Your task to perform on an android device: see creations saved in the google photos Image 0: 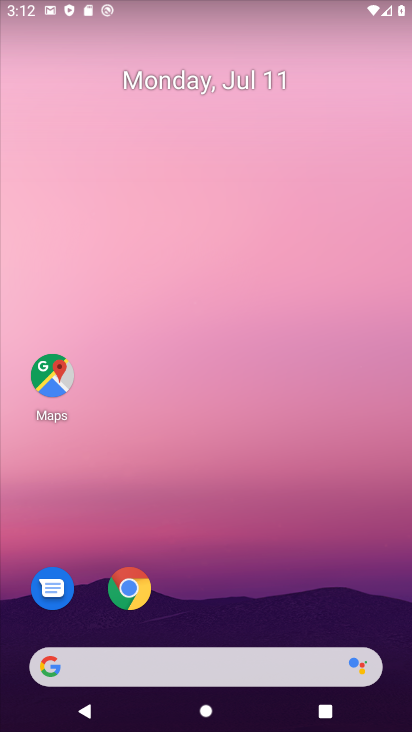
Step 0: drag from (268, 605) to (212, 19)
Your task to perform on an android device: see creations saved in the google photos Image 1: 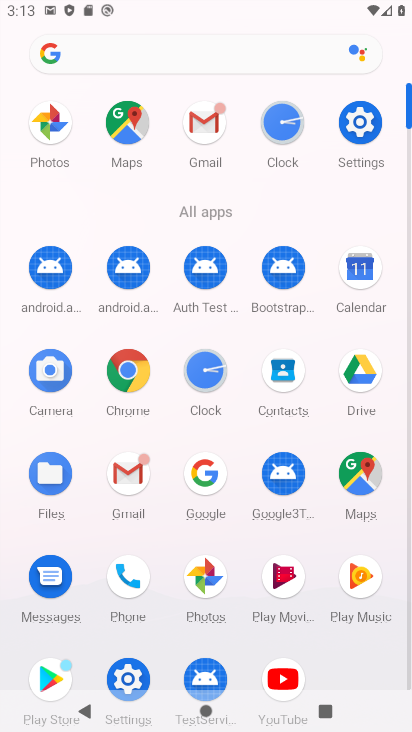
Step 1: click (210, 589)
Your task to perform on an android device: see creations saved in the google photos Image 2: 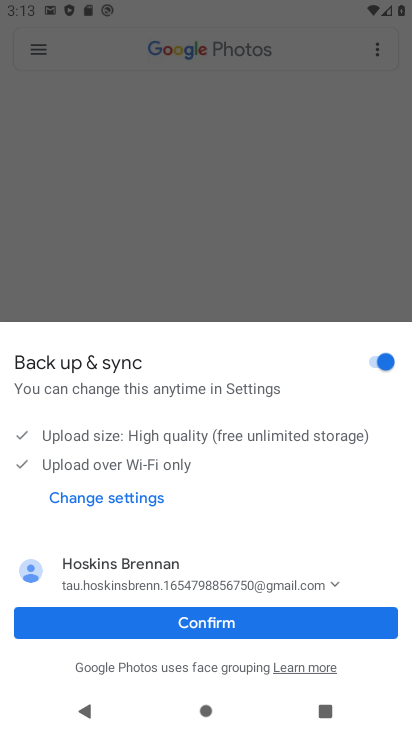
Step 2: click (180, 629)
Your task to perform on an android device: see creations saved in the google photos Image 3: 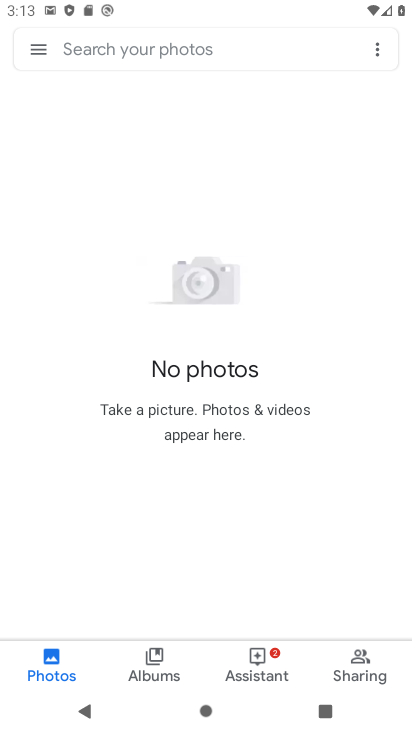
Step 3: click (174, 55)
Your task to perform on an android device: see creations saved in the google photos Image 4: 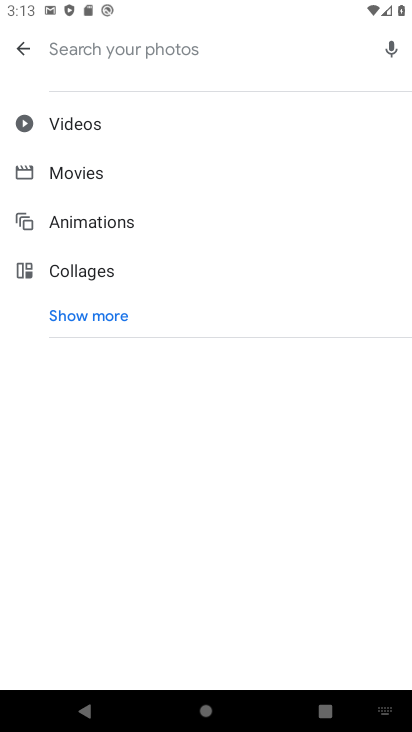
Step 4: click (90, 323)
Your task to perform on an android device: see creations saved in the google photos Image 5: 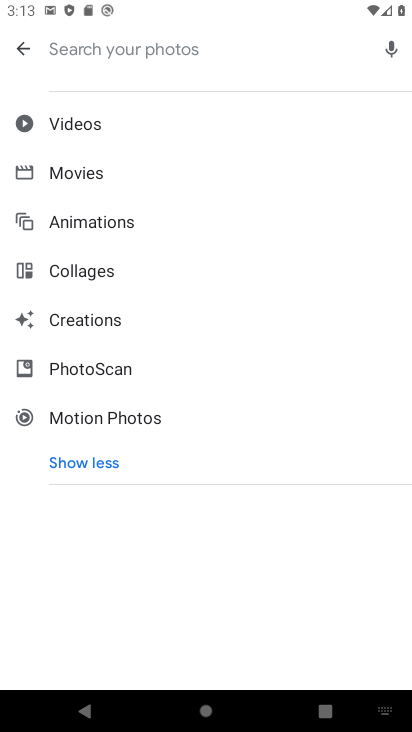
Step 5: click (89, 319)
Your task to perform on an android device: see creations saved in the google photos Image 6: 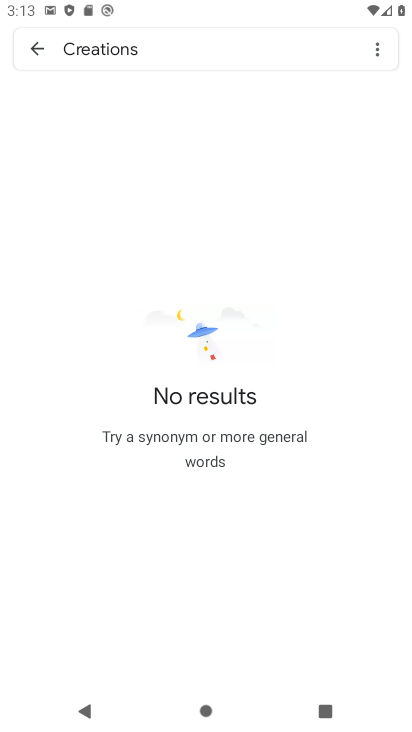
Step 6: task complete